Your task to perform on an android device: Go to settings Image 0: 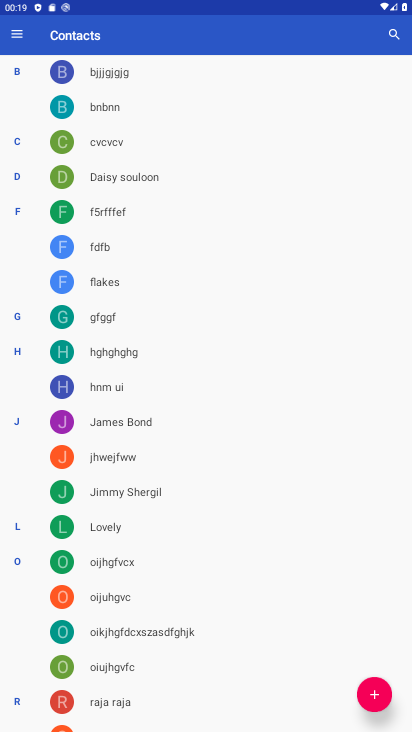
Step 0: press home button
Your task to perform on an android device: Go to settings Image 1: 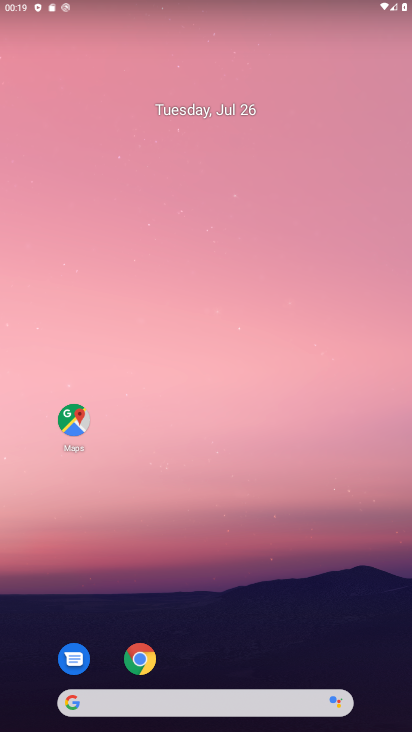
Step 1: drag from (268, 653) to (242, 19)
Your task to perform on an android device: Go to settings Image 2: 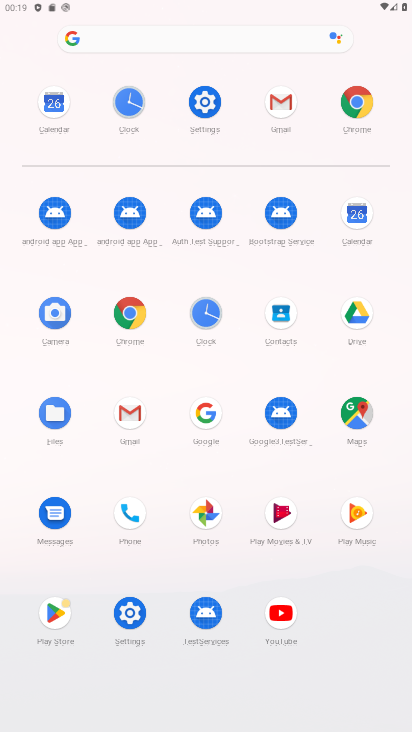
Step 2: click (201, 98)
Your task to perform on an android device: Go to settings Image 3: 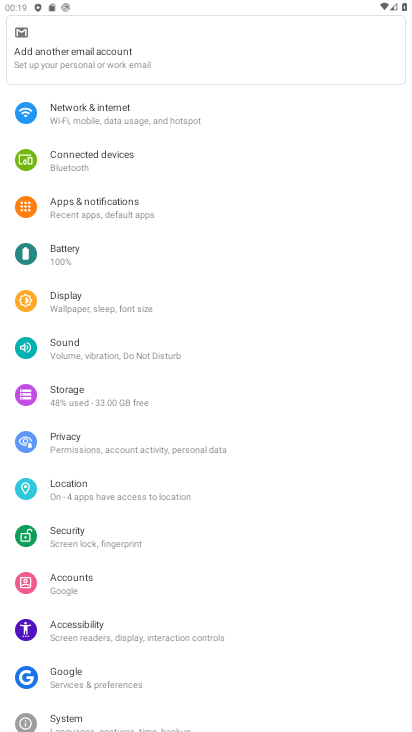
Step 3: task complete